Your task to perform on an android device: allow cookies in the chrome app Image 0: 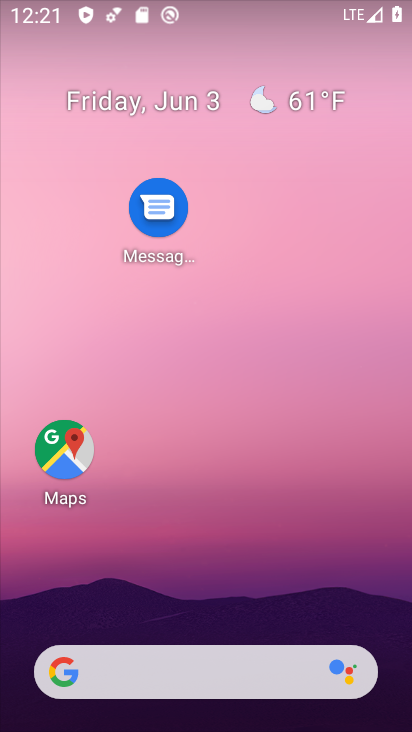
Step 0: drag from (205, 619) to (175, 104)
Your task to perform on an android device: allow cookies in the chrome app Image 1: 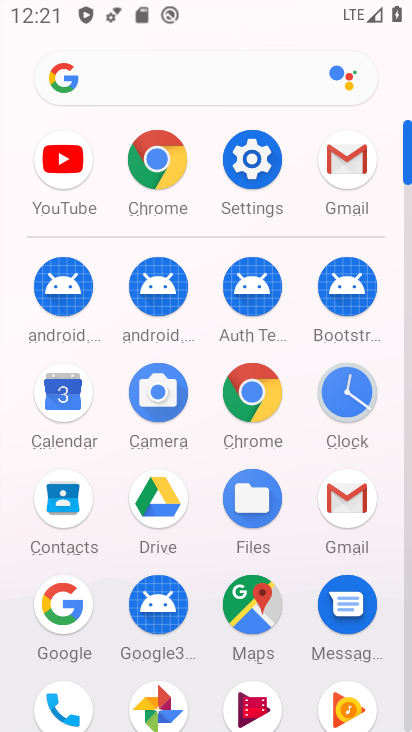
Step 1: click (157, 184)
Your task to perform on an android device: allow cookies in the chrome app Image 2: 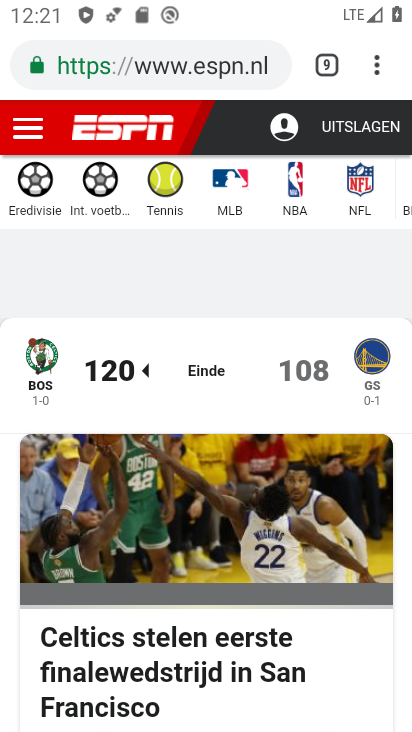
Step 2: click (368, 70)
Your task to perform on an android device: allow cookies in the chrome app Image 3: 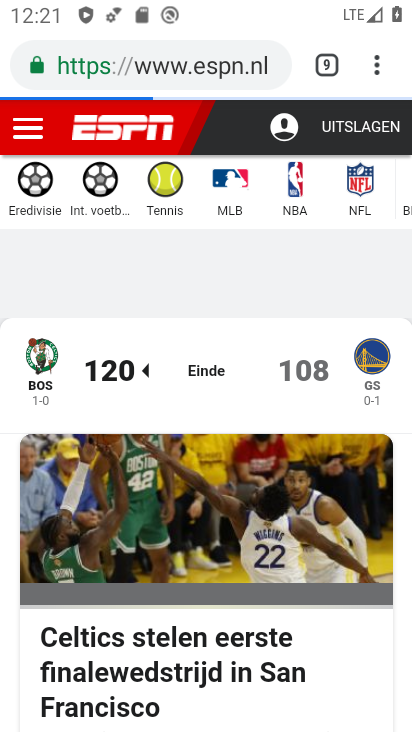
Step 3: drag from (374, 60) to (171, 632)
Your task to perform on an android device: allow cookies in the chrome app Image 4: 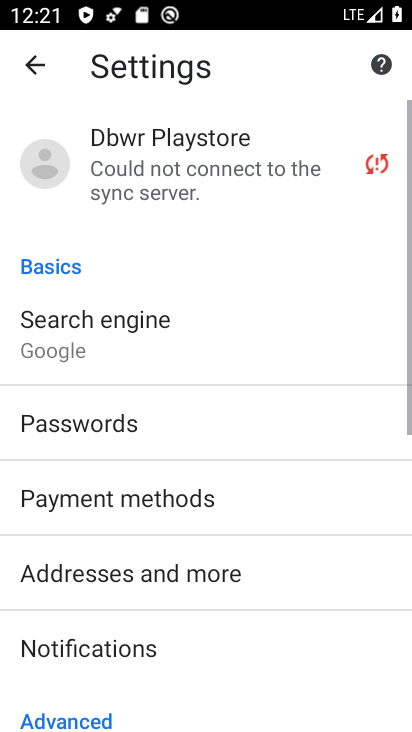
Step 4: drag from (172, 629) to (152, 1)
Your task to perform on an android device: allow cookies in the chrome app Image 5: 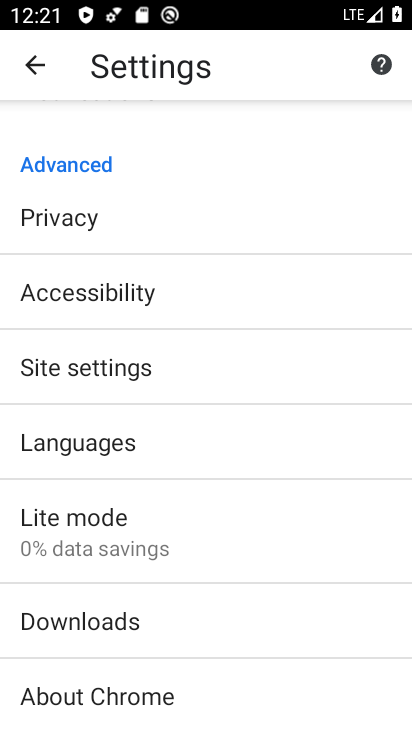
Step 5: click (96, 374)
Your task to perform on an android device: allow cookies in the chrome app Image 6: 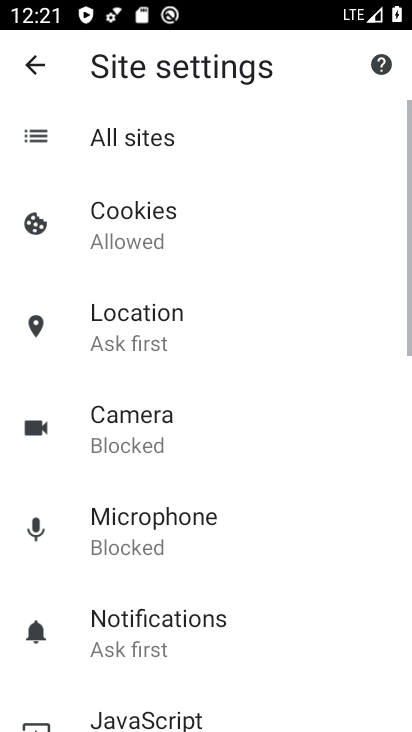
Step 6: drag from (153, 443) to (155, 178)
Your task to perform on an android device: allow cookies in the chrome app Image 7: 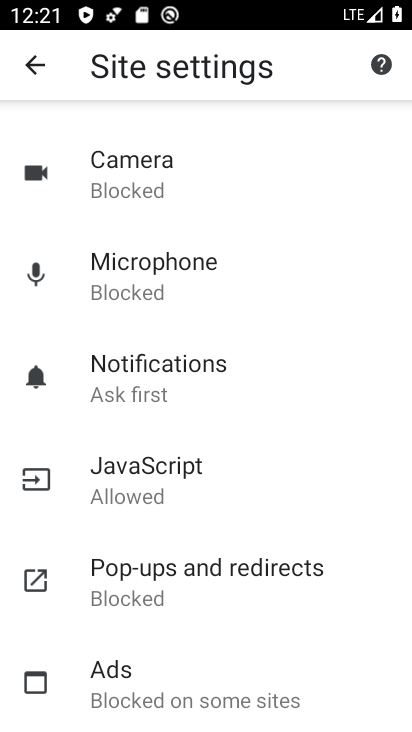
Step 7: drag from (152, 131) to (157, 472)
Your task to perform on an android device: allow cookies in the chrome app Image 8: 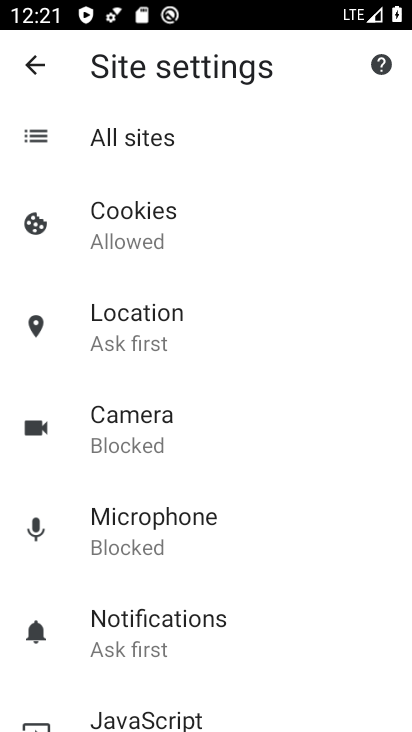
Step 8: click (155, 239)
Your task to perform on an android device: allow cookies in the chrome app Image 9: 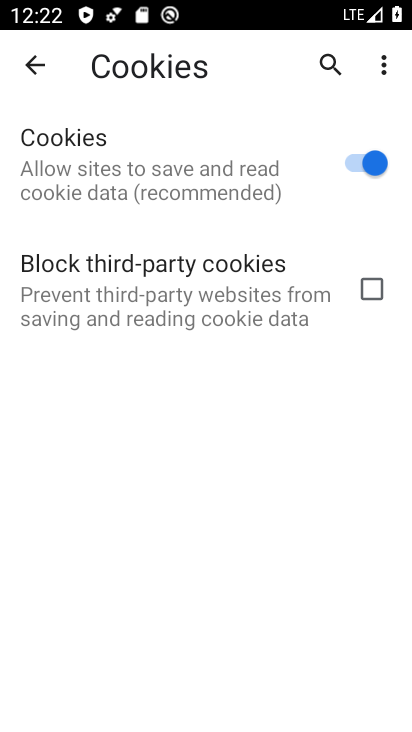
Step 9: task complete